Your task to perform on an android device: turn off picture-in-picture Image 0: 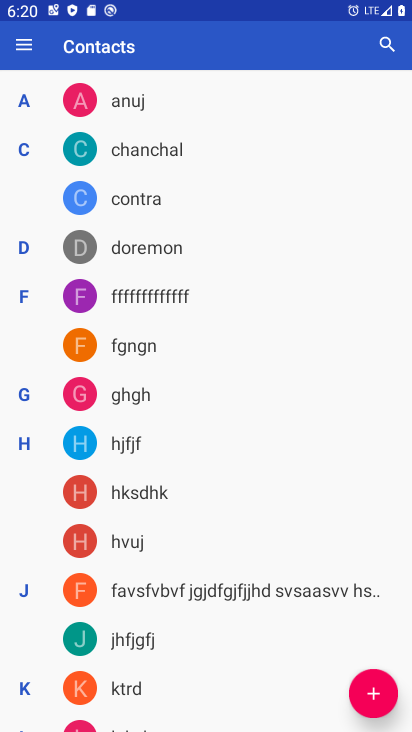
Step 0: press home button
Your task to perform on an android device: turn off picture-in-picture Image 1: 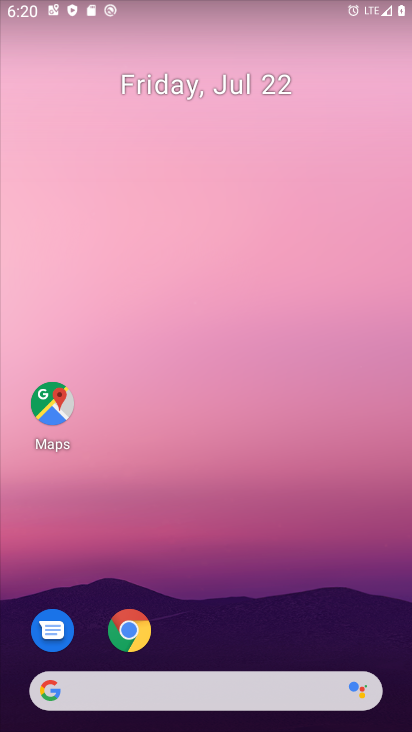
Step 1: drag from (293, 640) to (342, 95)
Your task to perform on an android device: turn off picture-in-picture Image 2: 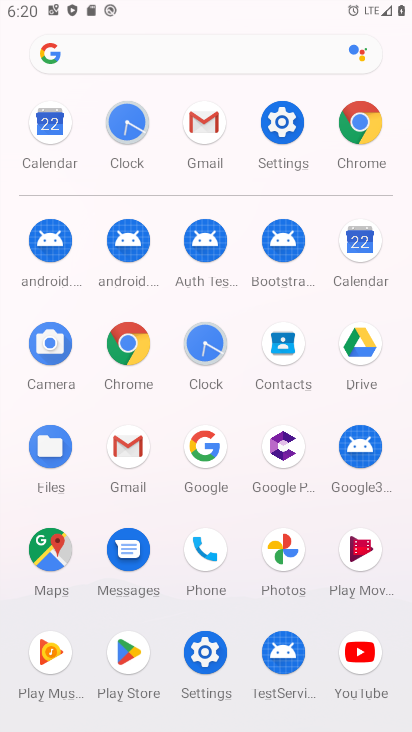
Step 2: click (279, 111)
Your task to perform on an android device: turn off picture-in-picture Image 3: 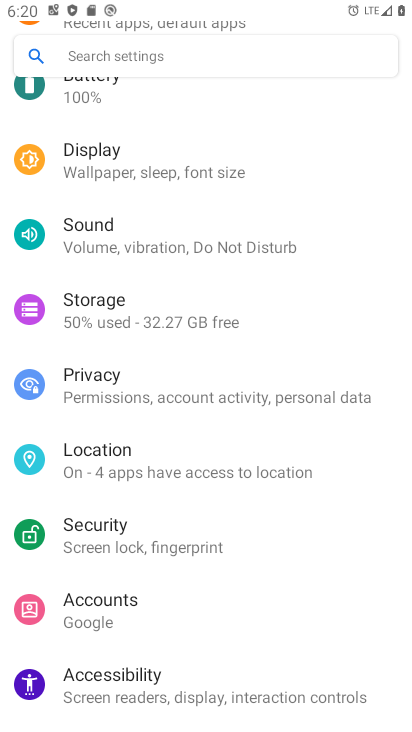
Step 3: drag from (207, 716) to (190, 679)
Your task to perform on an android device: turn off picture-in-picture Image 4: 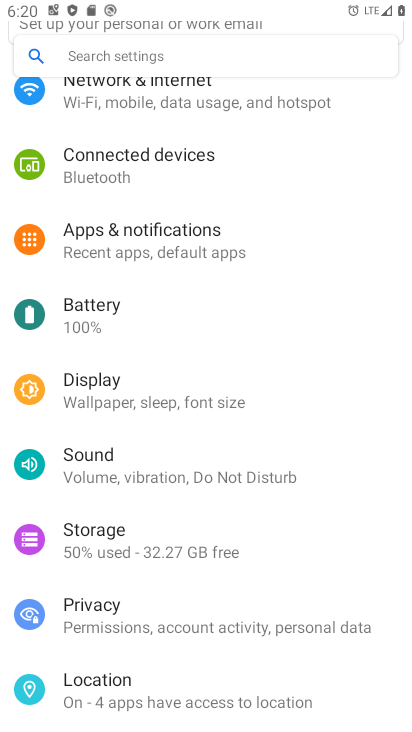
Step 4: click (180, 248)
Your task to perform on an android device: turn off picture-in-picture Image 5: 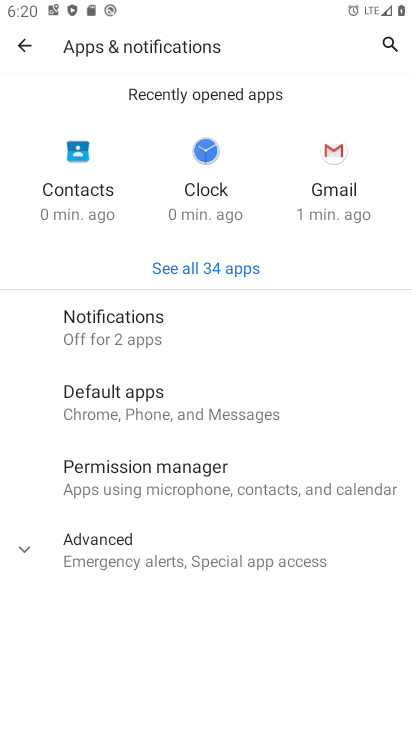
Step 5: click (176, 550)
Your task to perform on an android device: turn off picture-in-picture Image 6: 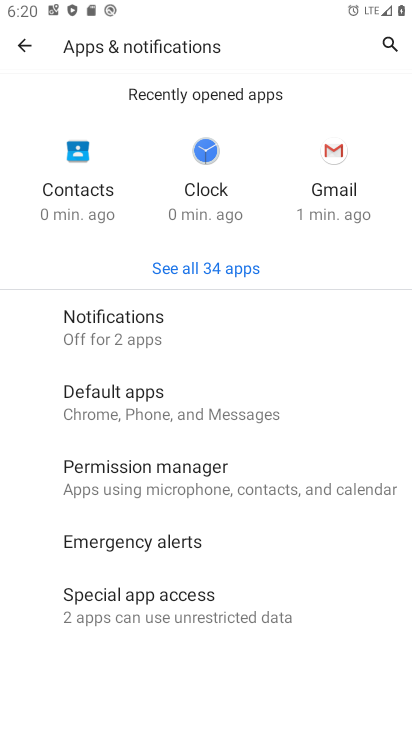
Step 6: click (162, 606)
Your task to perform on an android device: turn off picture-in-picture Image 7: 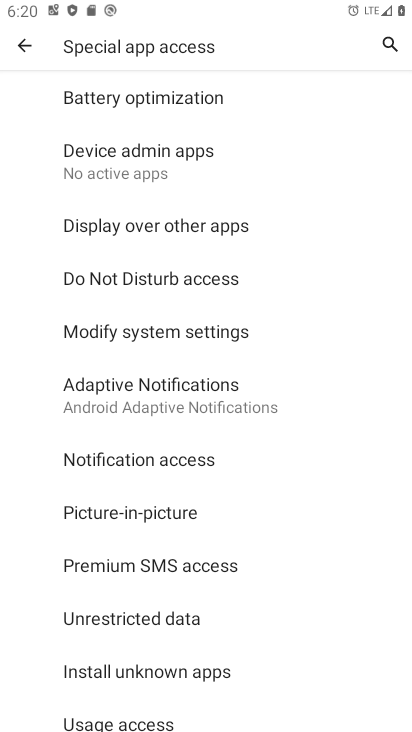
Step 7: click (162, 520)
Your task to perform on an android device: turn off picture-in-picture Image 8: 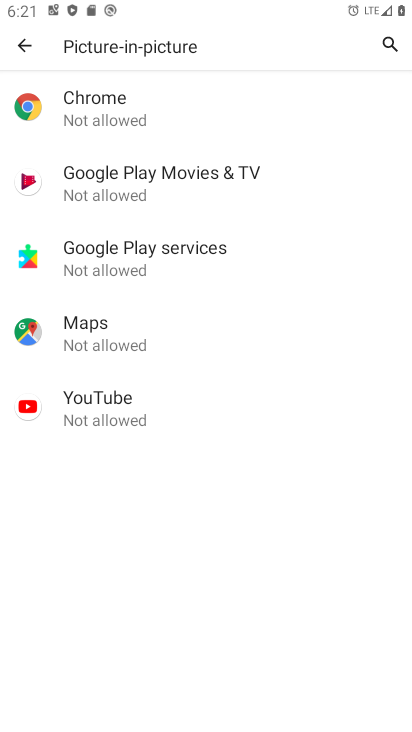
Step 8: task complete